Your task to perform on an android device: Open CNN.com Image 0: 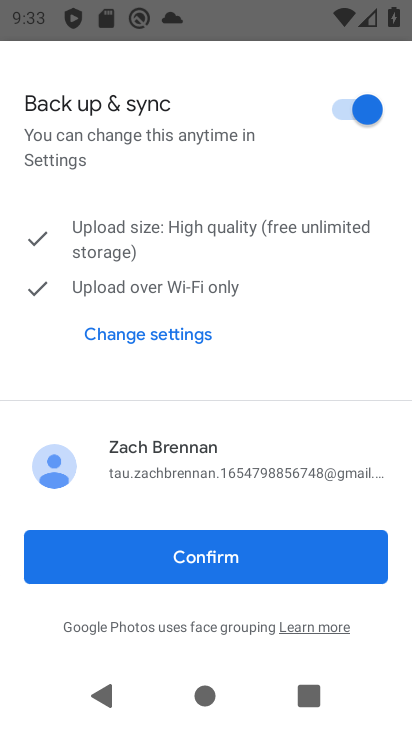
Step 0: press home button
Your task to perform on an android device: Open CNN.com Image 1: 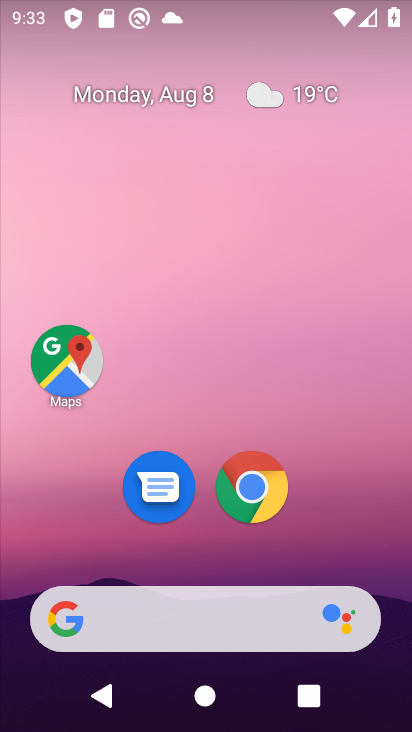
Step 1: drag from (203, 560) to (203, 65)
Your task to perform on an android device: Open CNN.com Image 2: 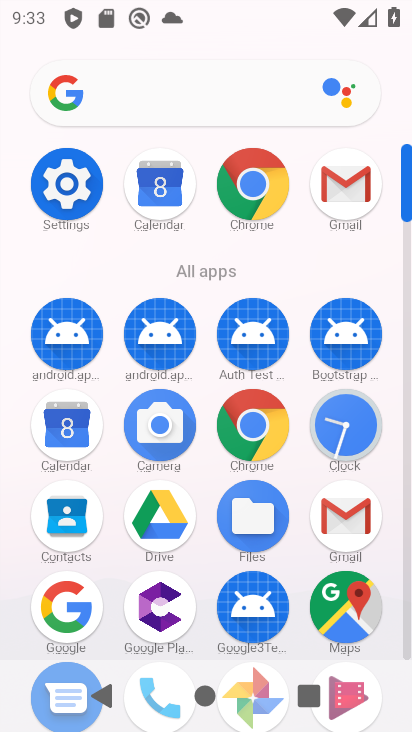
Step 2: click (246, 170)
Your task to perform on an android device: Open CNN.com Image 3: 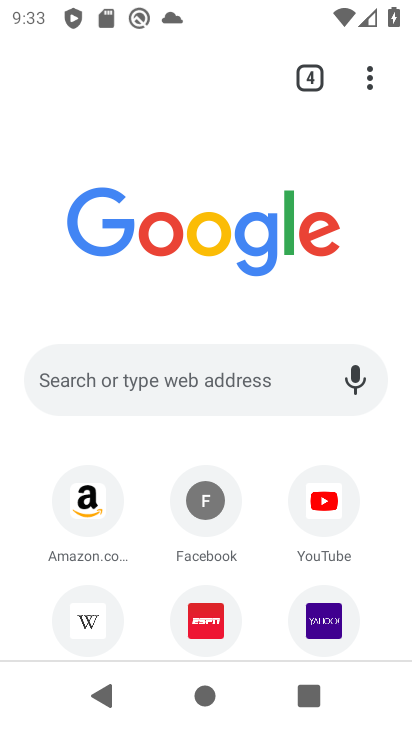
Step 3: click (225, 367)
Your task to perform on an android device: Open CNN.com Image 4: 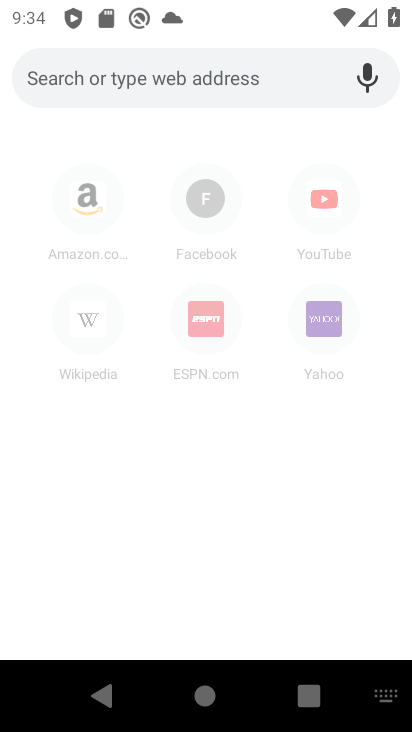
Step 4: type "CNN.com"
Your task to perform on an android device: Open CNN.com Image 5: 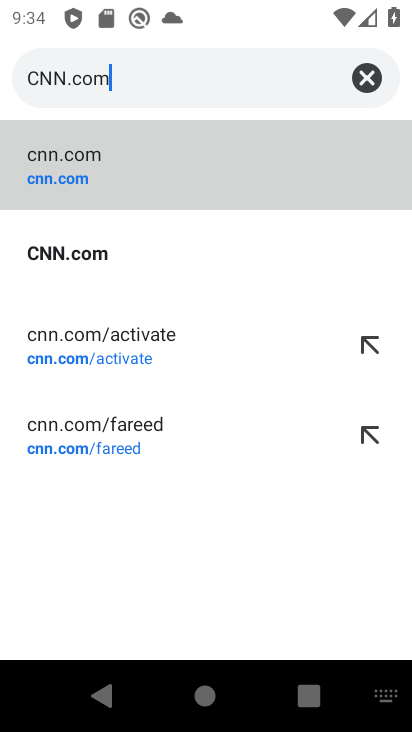
Step 5: type ""
Your task to perform on an android device: Open CNN.com Image 6: 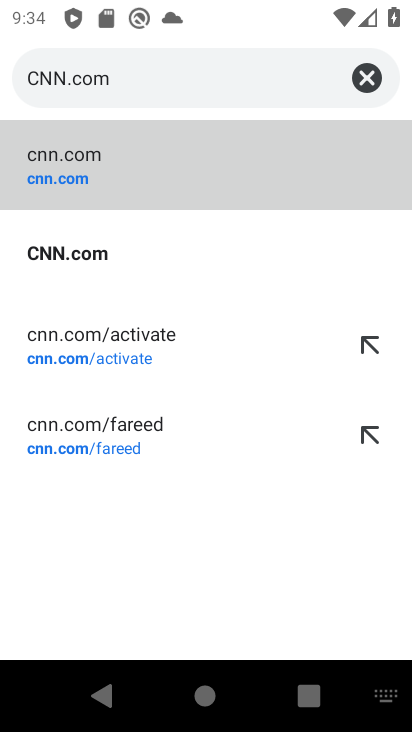
Step 6: click (91, 157)
Your task to perform on an android device: Open CNN.com Image 7: 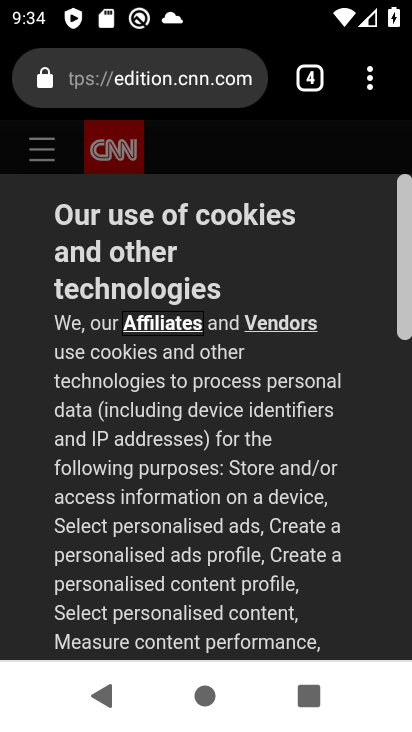
Step 7: task complete